Your task to perform on an android device: toggle sleep mode Image 0: 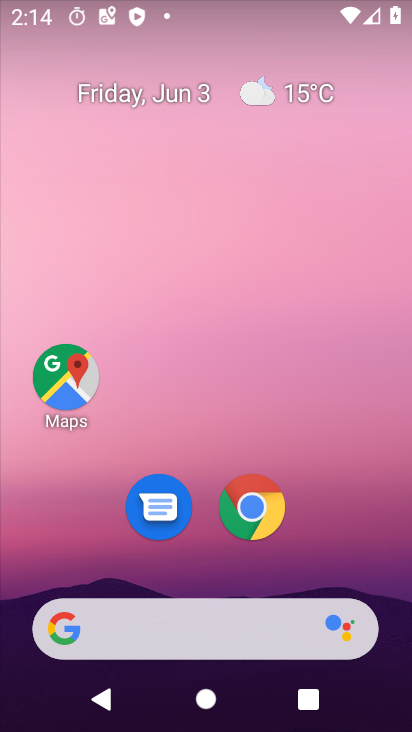
Step 0: drag from (399, 628) to (209, 38)
Your task to perform on an android device: toggle sleep mode Image 1: 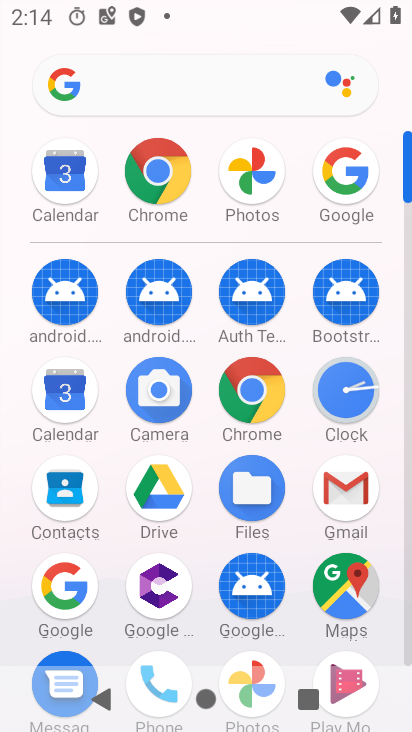
Step 1: drag from (295, 641) to (290, 147)
Your task to perform on an android device: toggle sleep mode Image 2: 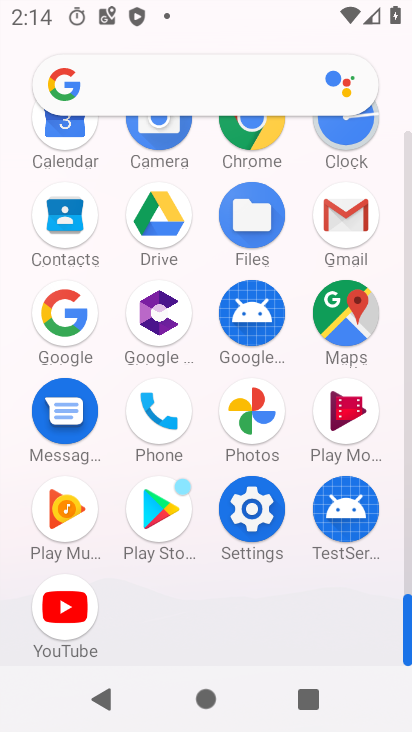
Step 2: click (253, 516)
Your task to perform on an android device: toggle sleep mode Image 3: 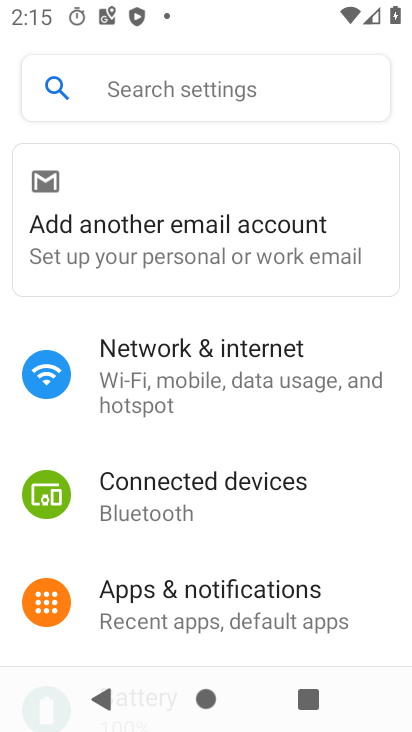
Step 3: task complete